Your task to perform on an android device: What's on my calendar today? Image 0: 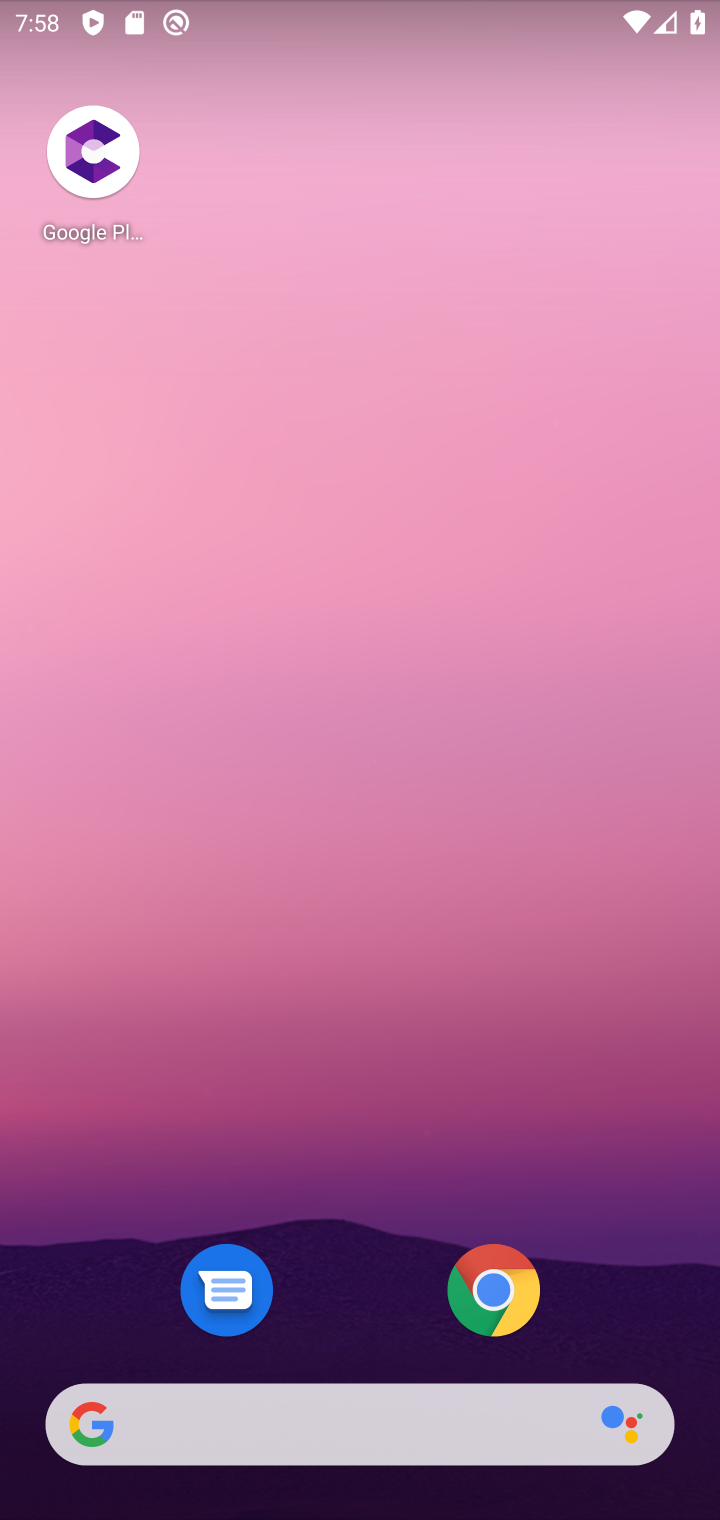
Step 0: drag from (286, 1300) to (458, 84)
Your task to perform on an android device: What's on my calendar today? Image 1: 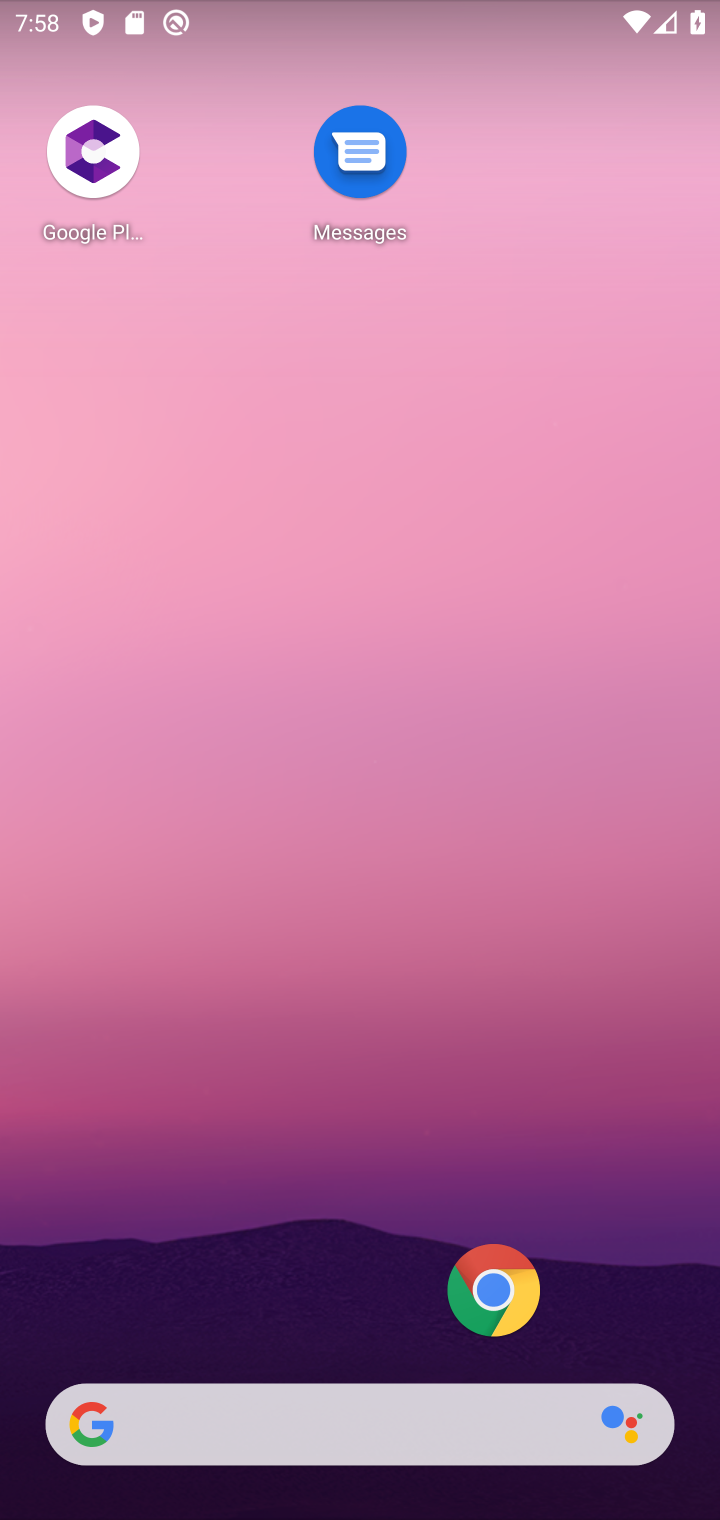
Step 1: drag from (447, 1348) to (560, 0)
Your task to perform on an android device: What's on my calendar today? Image 2: 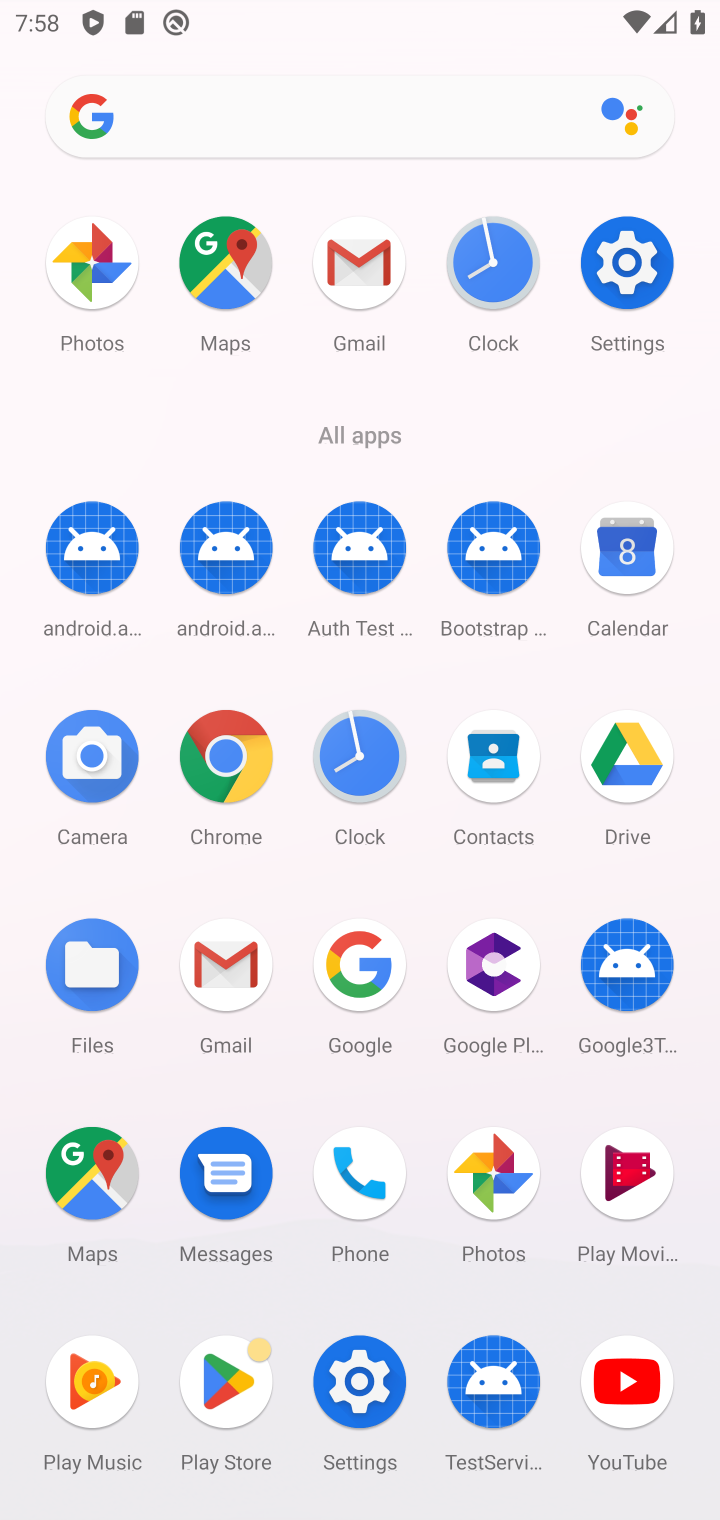
Step 2: click (639, 588)
Your task to perform on an android device: What's on my calendar today? Image 3: 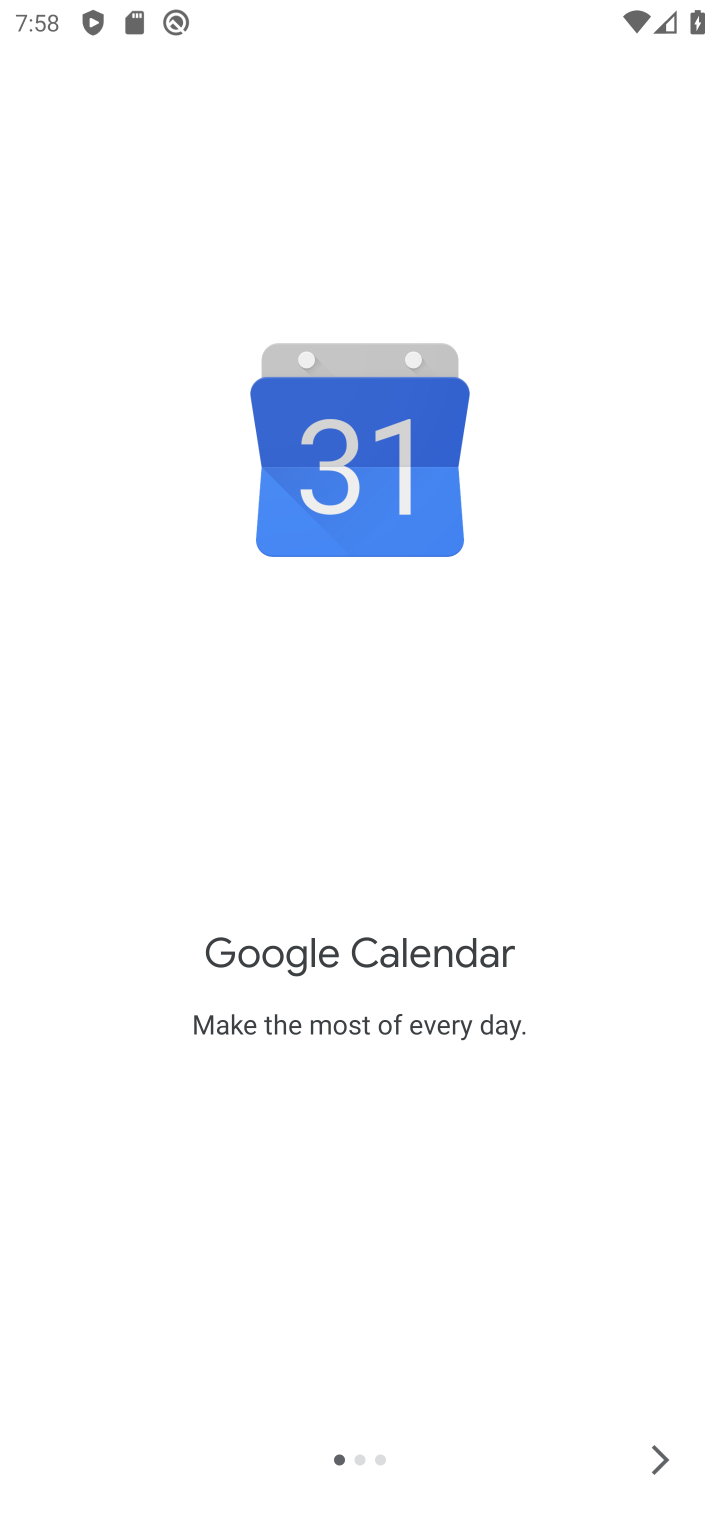
Step 3: click (658, 1471)
Your task to perform on an android device: What's on my calendar today? Image 4: 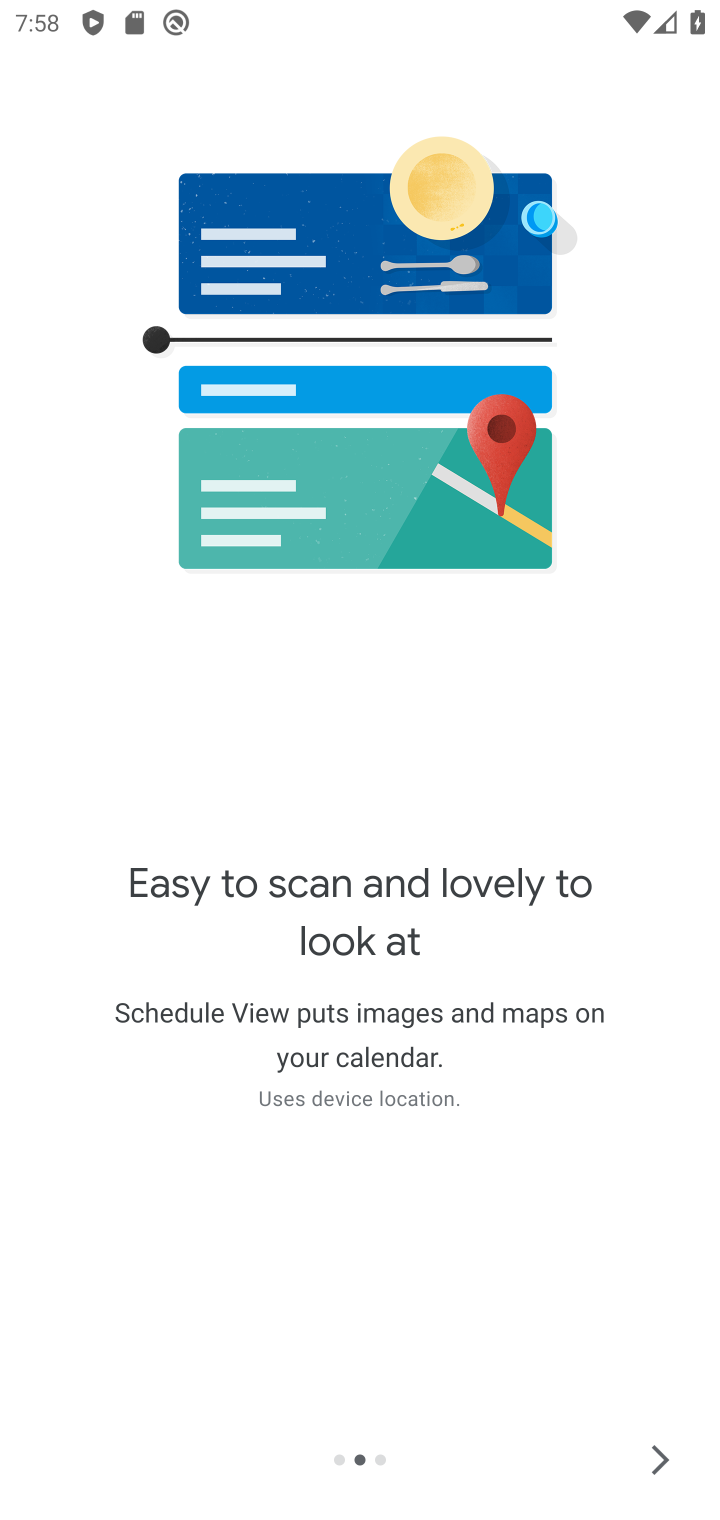
Step 4: click (666, 1474)
Your task to perform on an android device: What's on my calendar today? Image 5: 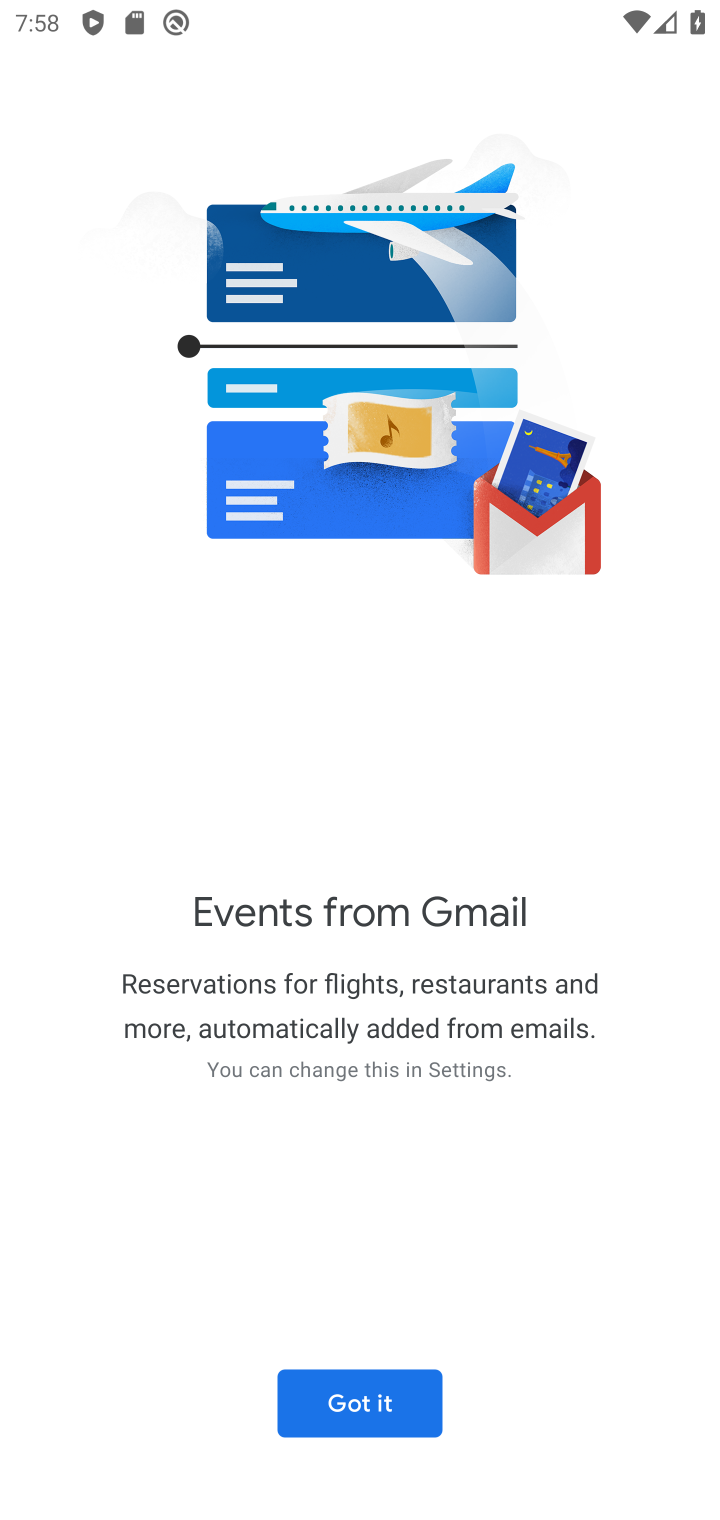
Step 5: click (385, 1399)
Your task to perform on an android device: What's on my calendar today? Image 6: 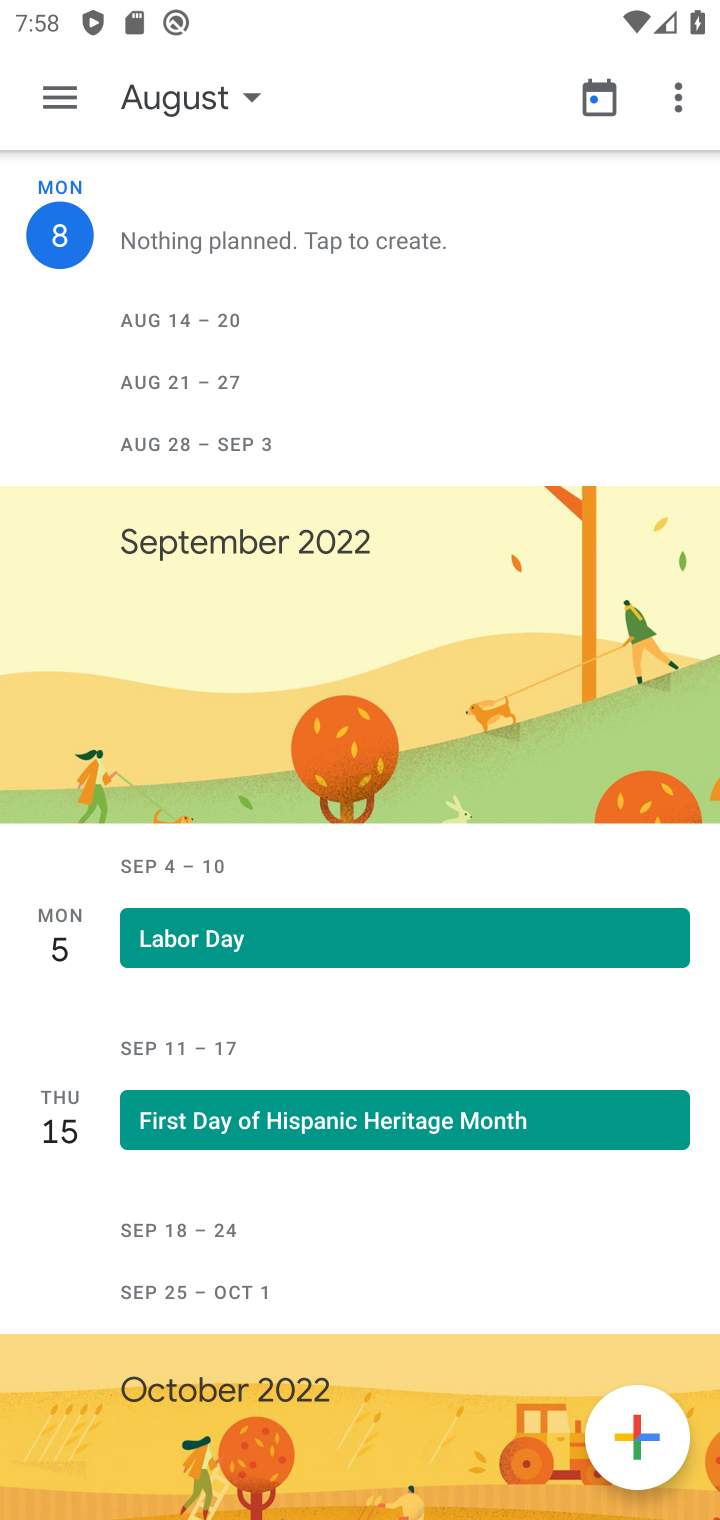
Step 6: click (233, 101)
Your task to perform on an android device: What's on my calendar today? Image 7: 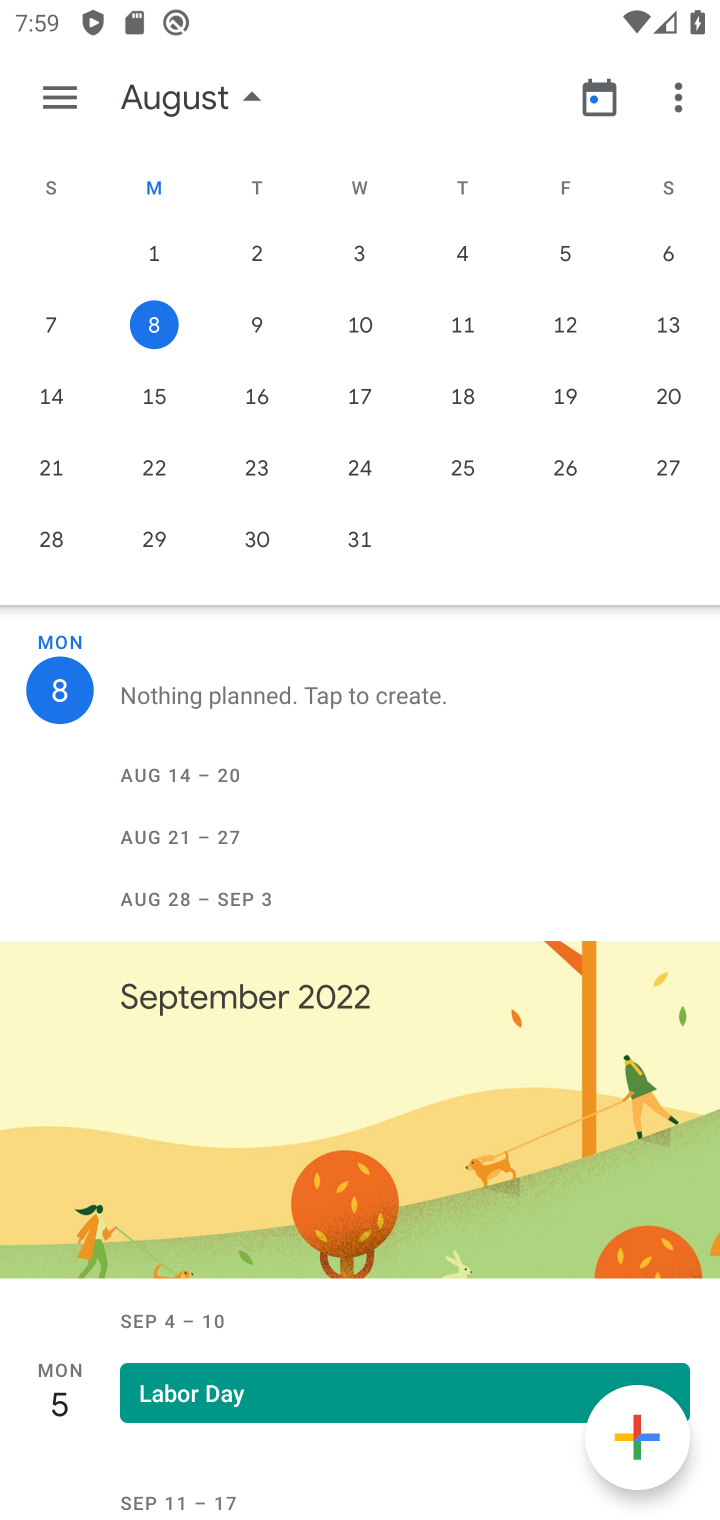
Step 7: task complete